Your task to perform on an android device: Go to wifi settings Image 0: 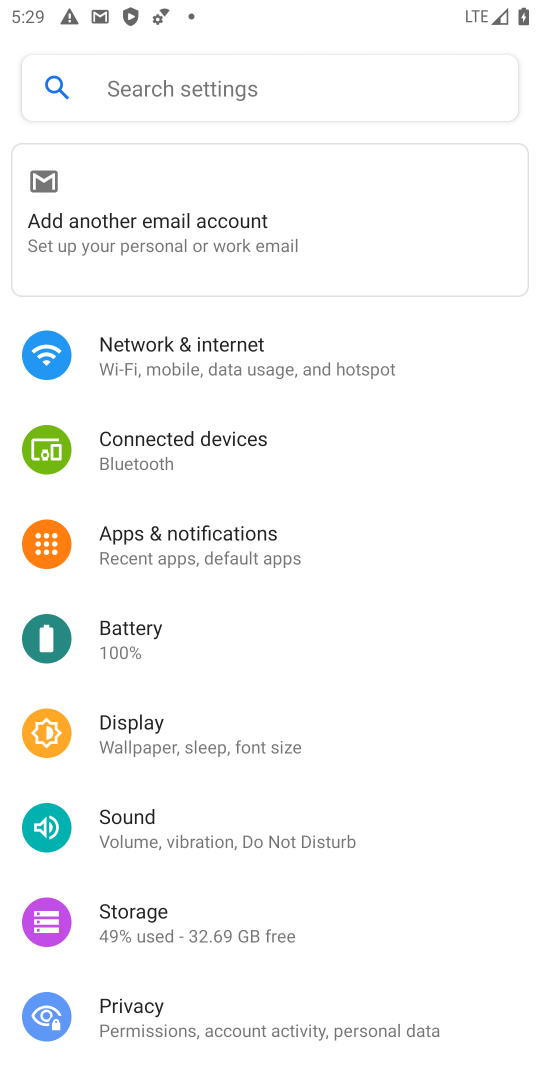
Step 0: click (181, 348)
Your task to perform on an android device: Go to wifi settings Image 1: 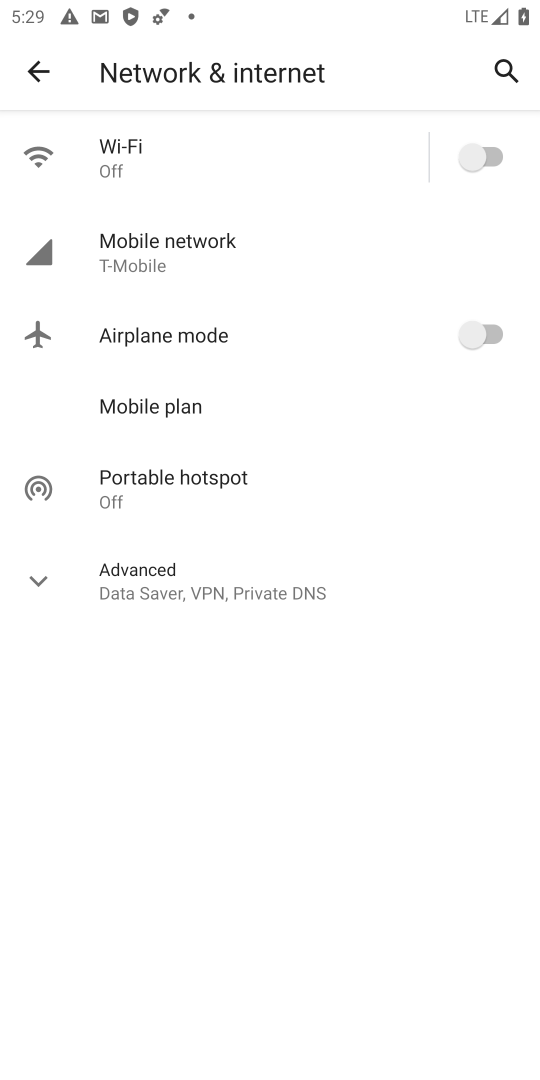
Step 1: click (120, 156)
Your task to perform on an android device: Go to wifi settings Image 2: 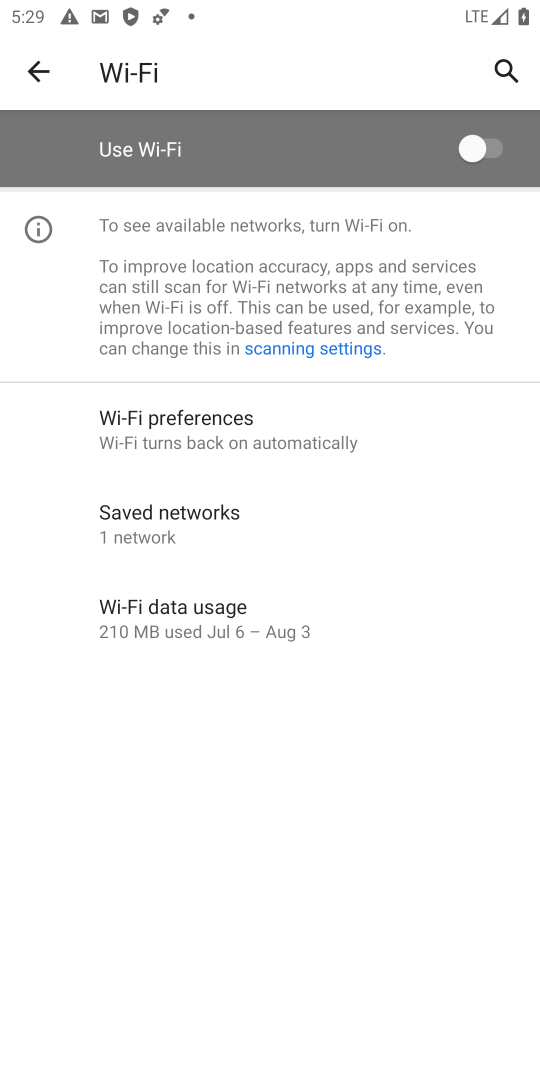
Step 2: task complete